Your task to perform on an android device: change the clock display to show seconds Image 0: 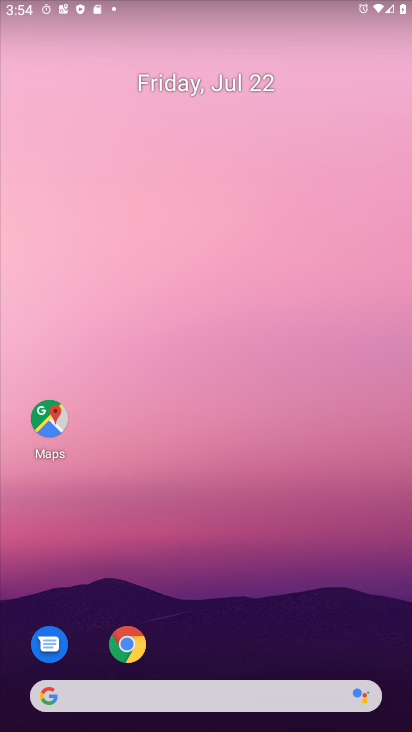
Step 0: press home button
Your task to perform on an android device: change the clock display to show seconds Image 1: 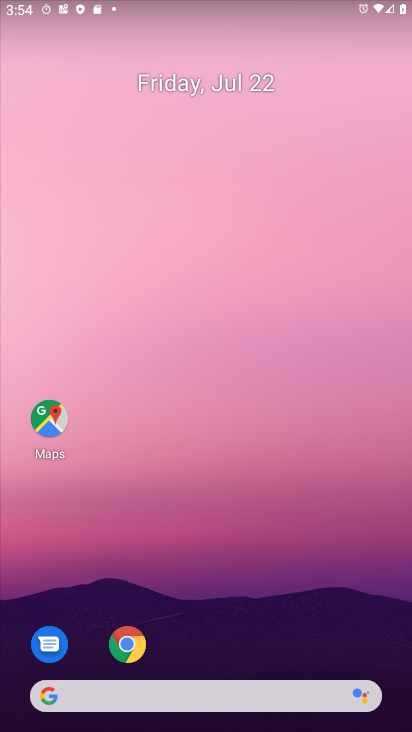
Step 1: drag from (196, 637) to (185, 14)
Your task to perform on an android device: change the clock display to show seconds Image 2: 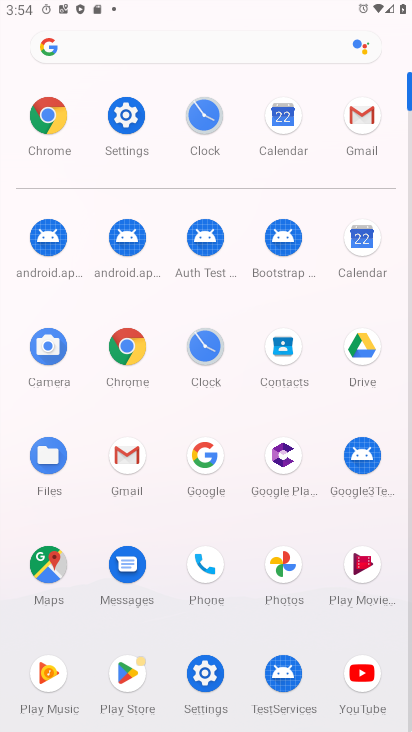
Step 2: click (196, 112)
Your task to perform on an android device: change the clock display to show seconds Image 3: 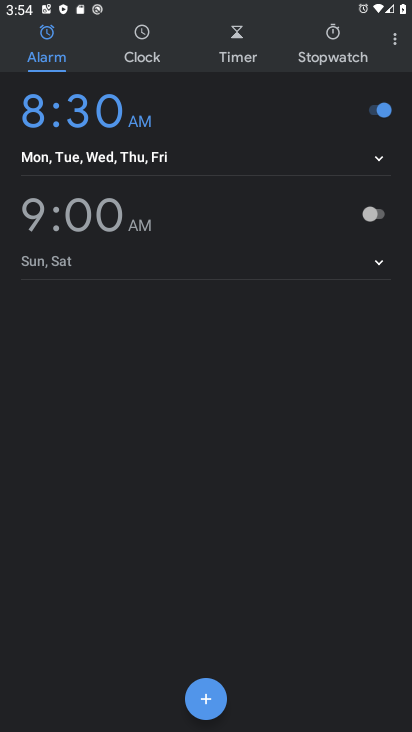
Step 3: click (387, 46)
Your task to perform on an android device: change the clock display to show seconds Image 4: 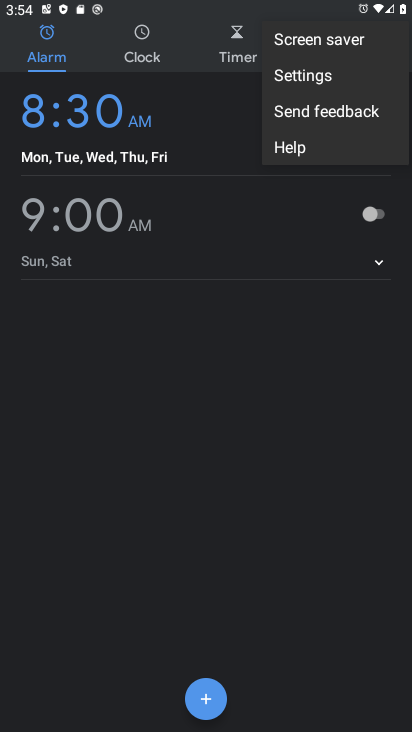
Step 4: click (310, 72)
Your task to perform on an android device: change the clock display to show seconds Image 5: 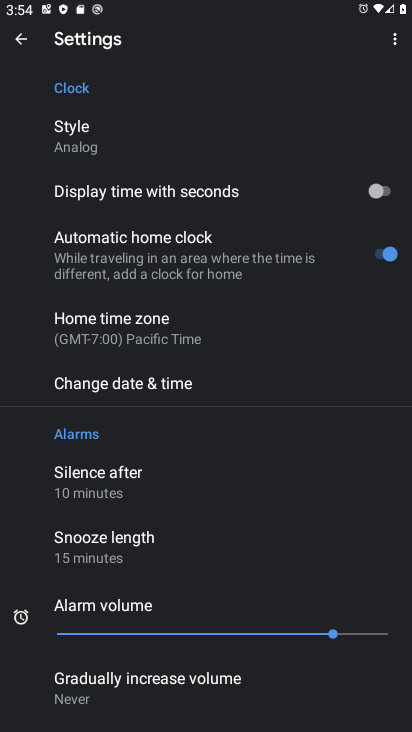
Step 5: click (372, 195)
Your task to perform on an android device: change the clock display to show seconds Image 6: 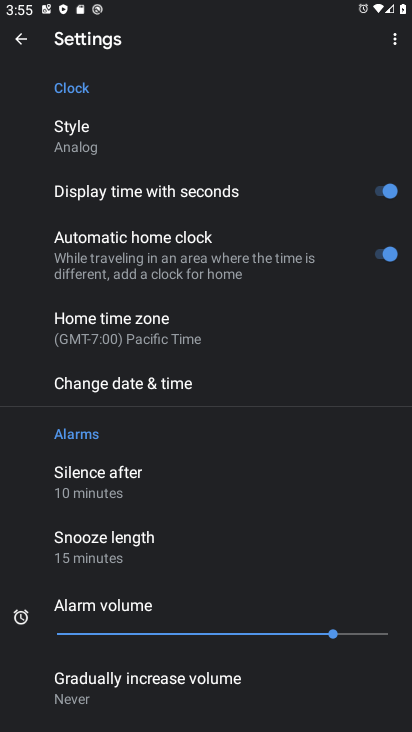
Step 6: task complete